Your task to perform on an android device: Open calendar and show me the third week of next month Image 0: 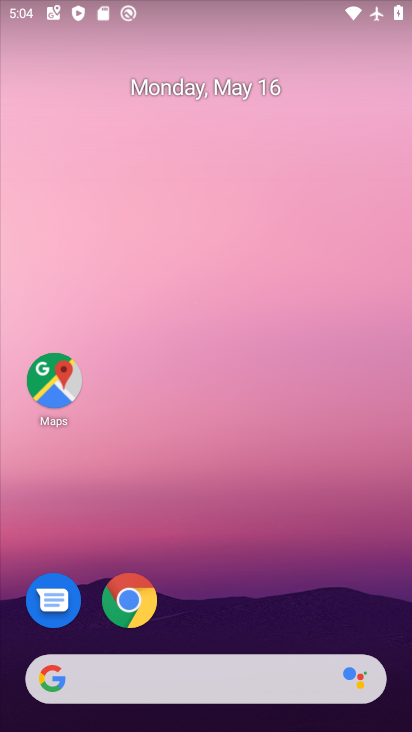
Step 0: drag from (227, 643) to (211, 97)
Your task to perform on an android device: Open calendar and show me the third week of next month Image 1: 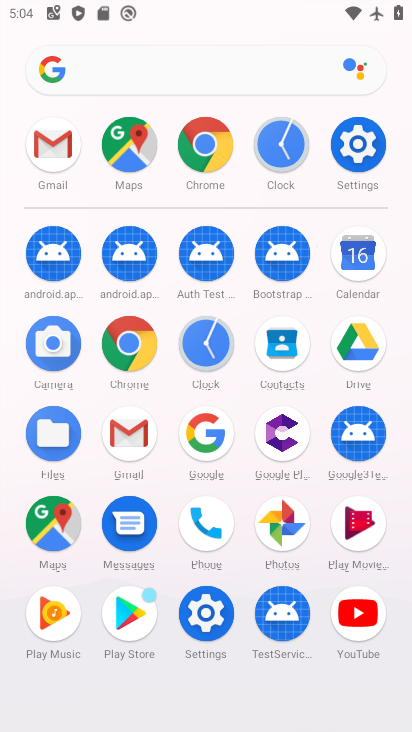
Step 1: click (350, 261)
Your task to perform on an android device: Open calendar and show me the third week of next month Image 2: 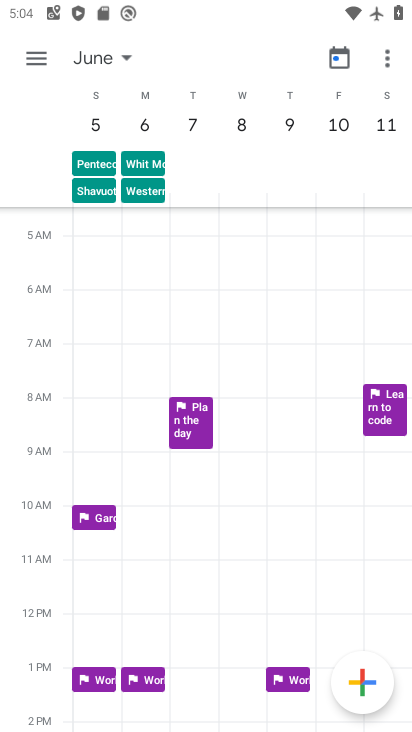
Step 2: task complete